Your task to perform on an android device: Find coffee shops on Maps Image 0: 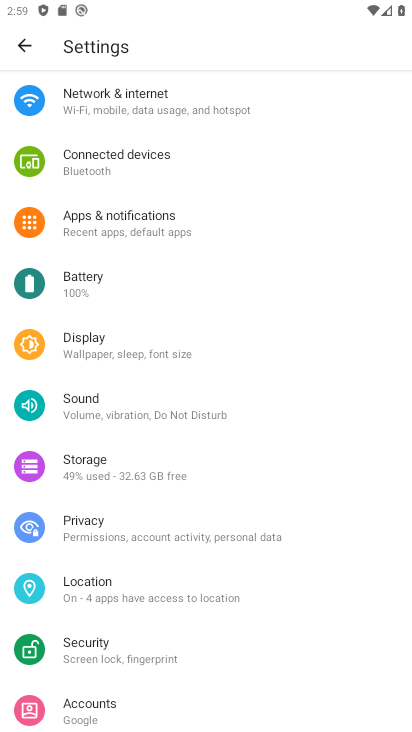
Step 0: press home button
Your task to perform on an android device: Find coffee shops on Maps Image 1: 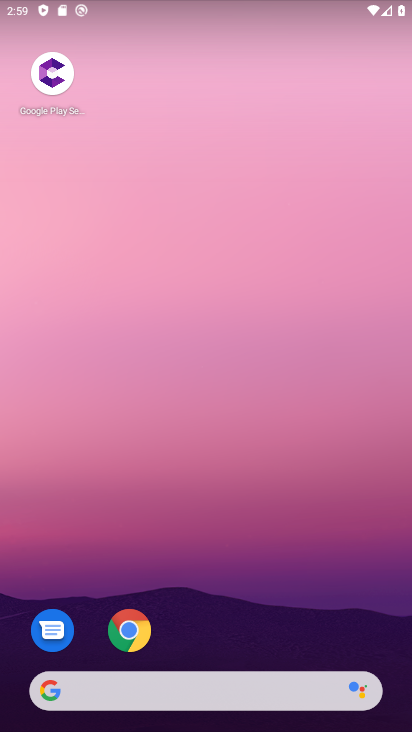
Step 1: drag from (214, 537) to (270, 61)
Your task to perform on an android device: Find coffee shops on Maps Image 2: 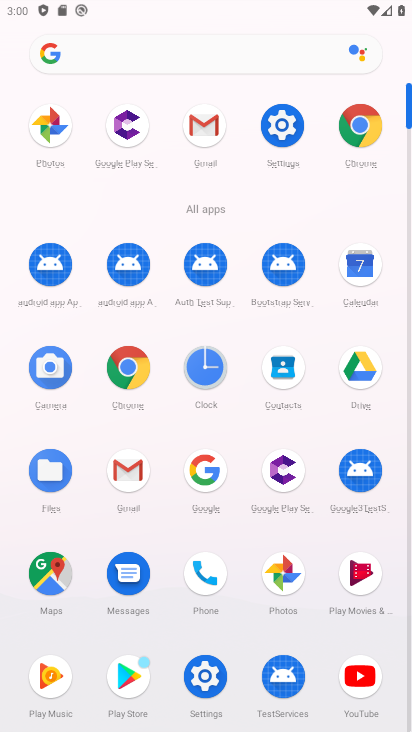
Step 2: click (46, 577)
Your task to perform on an android device: Find coffee shops on Maps Image 3: 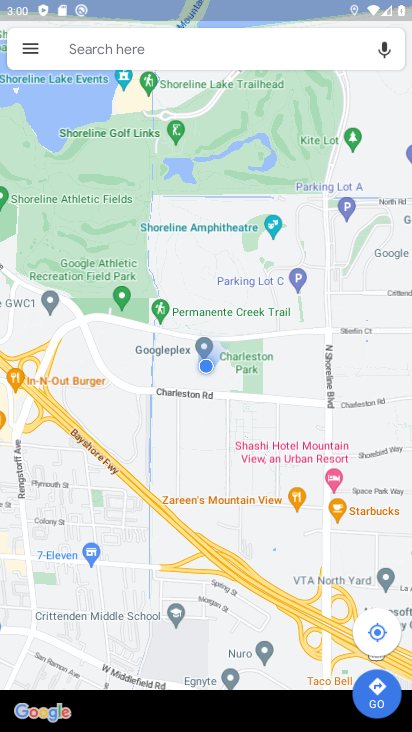
Step 3: click (298, 49)
Your task to perform on an android device: Find coffee shops on Maps Image 4: 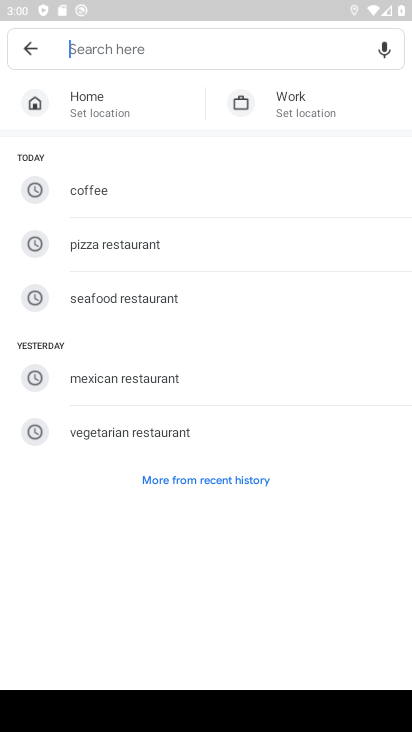
Step 4: type "coffee shops"
Your task to perform on an android device: Find coffee shops on Maps Image 5: 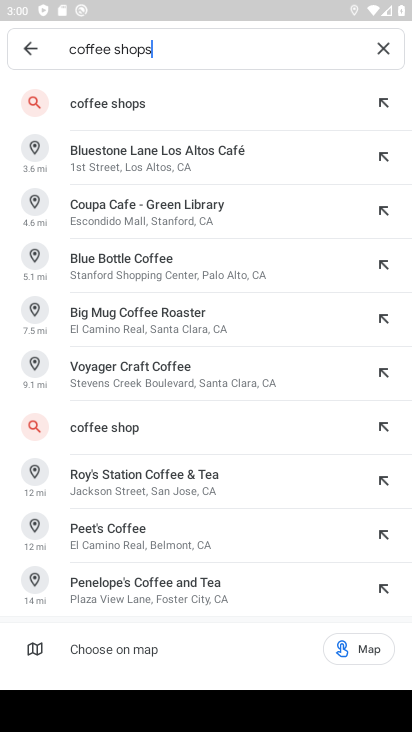
Step 5: click (146, 105)
Your task to perform on an android device: Find coffee shops on Maps Image 6: 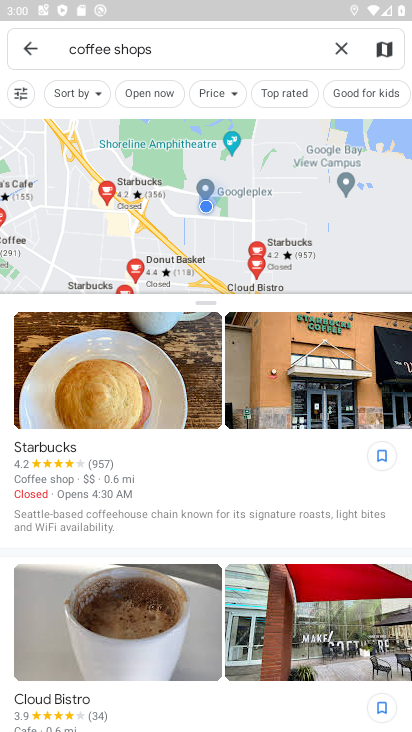
Step 6: task complete